Your task to perform on an android device: make emails show in primary in the gmail app Image 0: 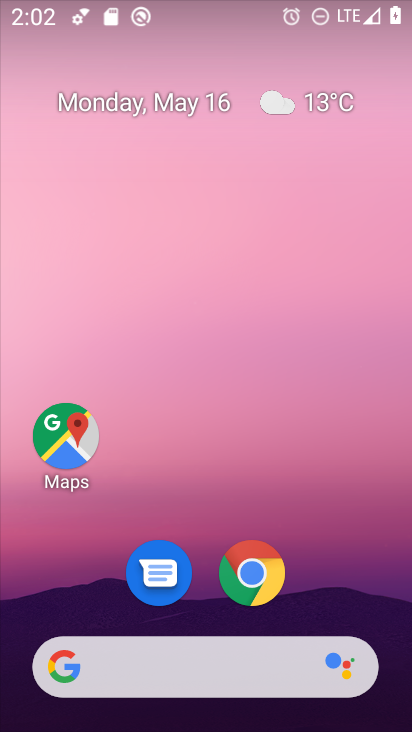
Step 0: drag from (159, 687) to (78, 113)
Your task to perform on an android device: make emails show in primary in the gmail app Image 1: 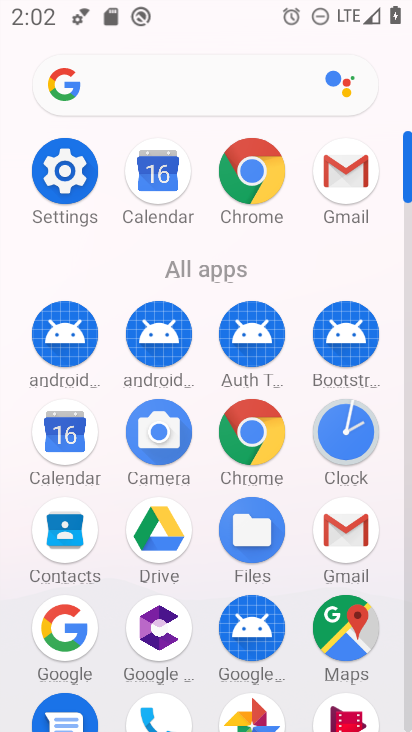
Step 1: click (344, 545)
Your task to perform on an android device: make emails show in primary in the gmail app Image 2: 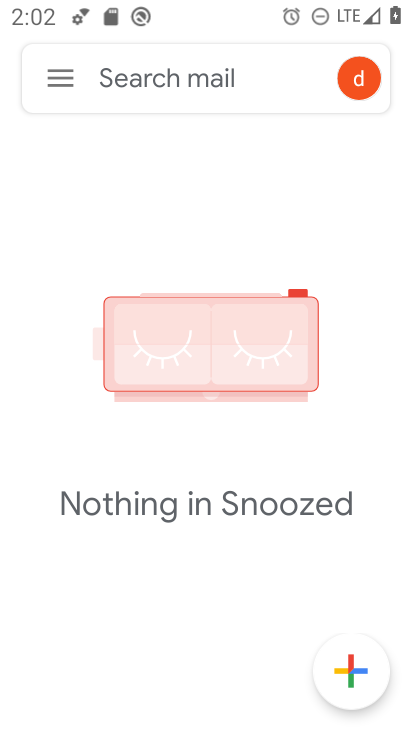
Step 2: click (57, 81)
Your task to perform on an android device: make emails show in primary in the gmail app Image 3: 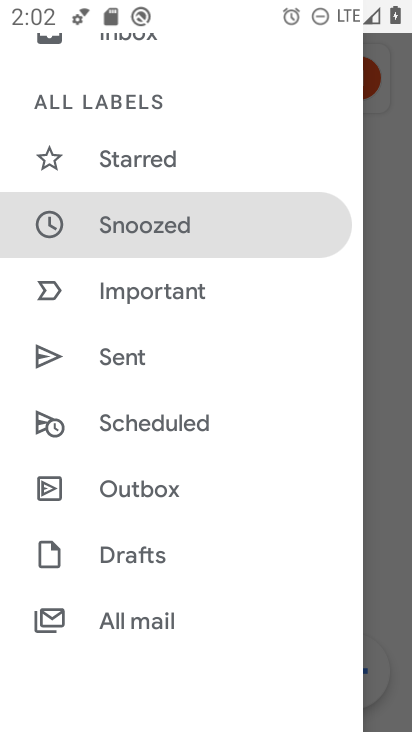
Step 3: drag from (142, 619) to (101, 80)
Your task to perform on an android device: make emails show in primary in the gmail app Image 4: 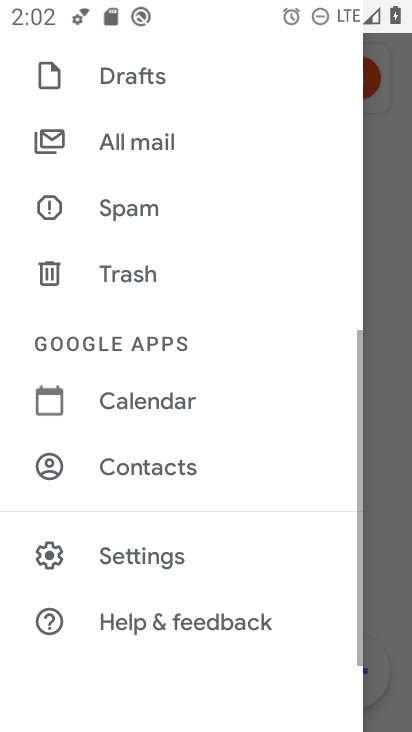
Step 4: click (122, 557)
Your task to perform on an android device: make emails show in primary in the gmail app Image 5: 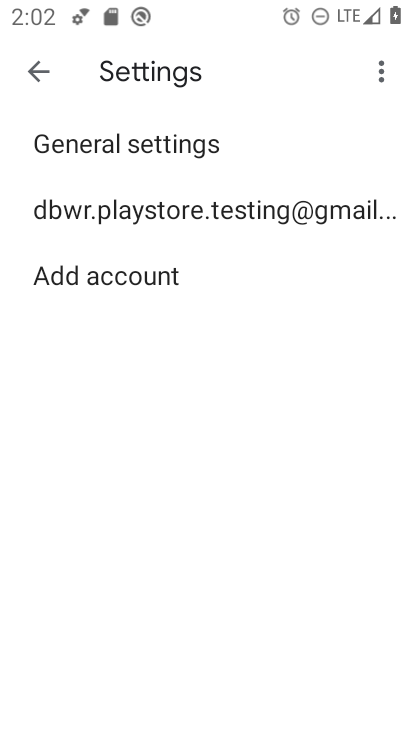
Step 5: click (66, 222)
Your task to perform on an android device: make emails show in primary in the gmail app Image 6: 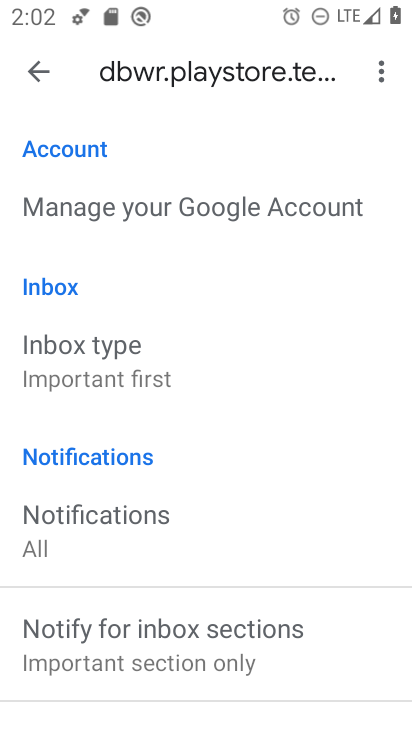
Step 6: drag from (131, 510) to (52, 2)
Your task to perform on an android device: make emails show in primary in the gmail app Image 7: 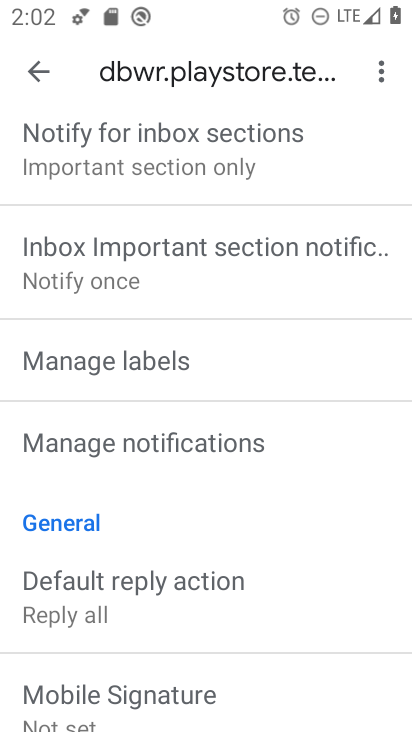
Step 7: drag from (209, 159) to (203, 603)
Your task to perform on an android device: make emails show in primary in the gmail app Image 8: 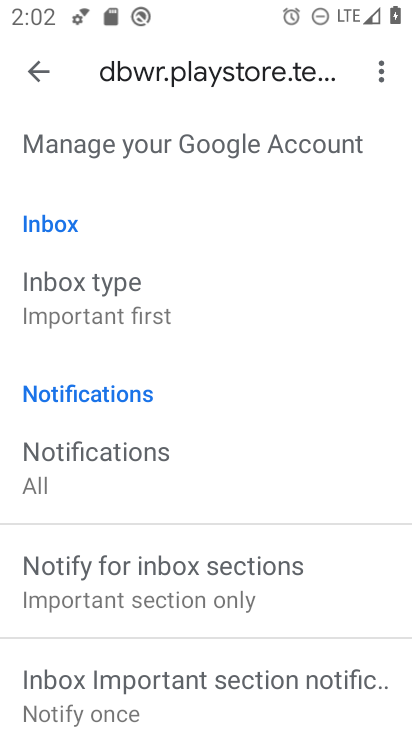
Step 8: click (79, 303)
Your task to perform on an android device: make emails show in primary in the gmail app Image 9: 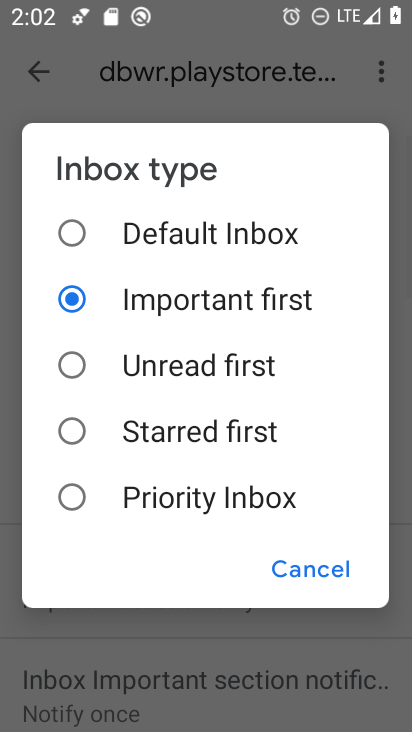
Step 9: click (123, 238)
Your task to perform on an android device: make emails show in primary in the gmail app Image 10: 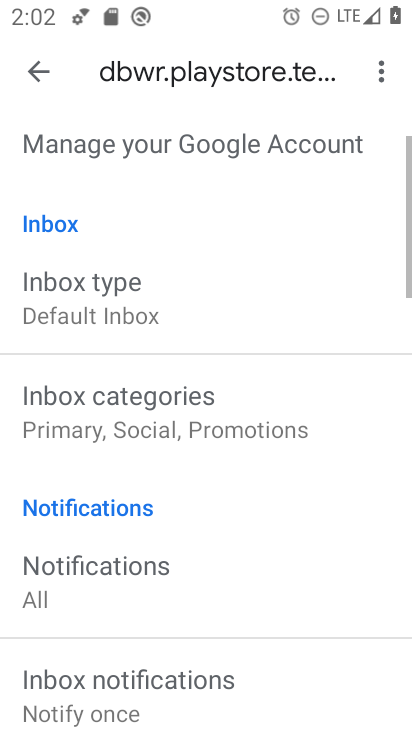
Step 10: click (99, 423)
Your task to perform on an android device: make emails show in primary in the gmail app Image 11: 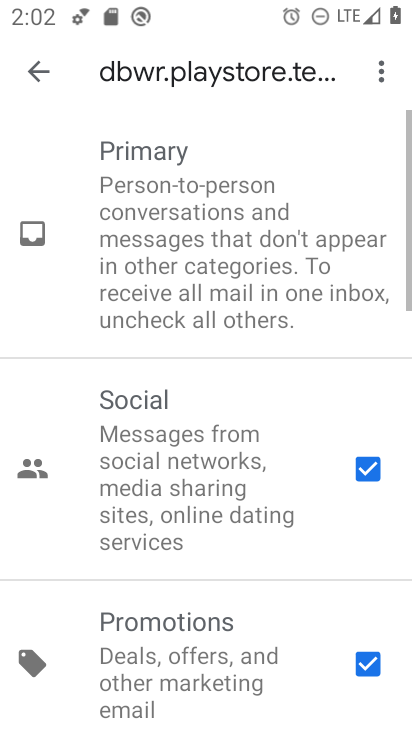
Step 11: click (361, 467)
Your task to perform on an android device: make emails show in primary in the gmail app Image 12: 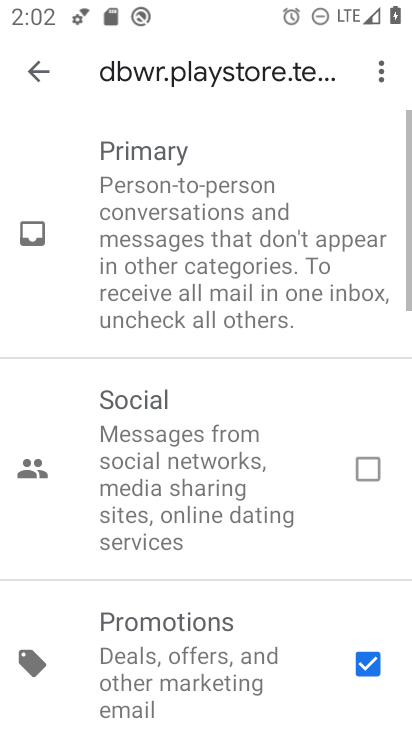
Step 12: click (366, 669)
Your task to perform on an android device: make emails show in primary in the gmail app Image 13: 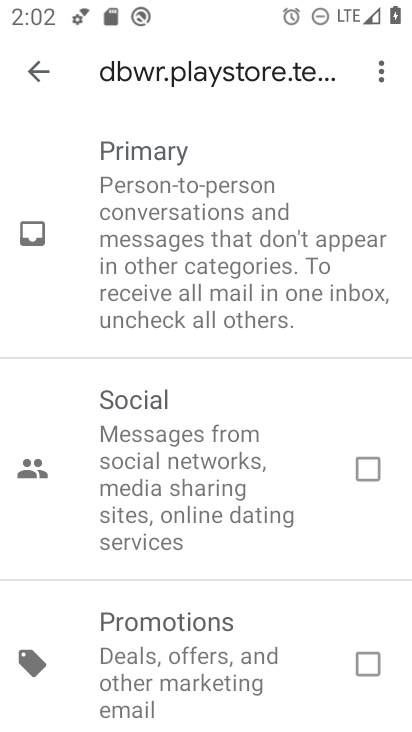
Step 13: task complete